Your task to perform on an android device: Open Yahoo.com Image 0: 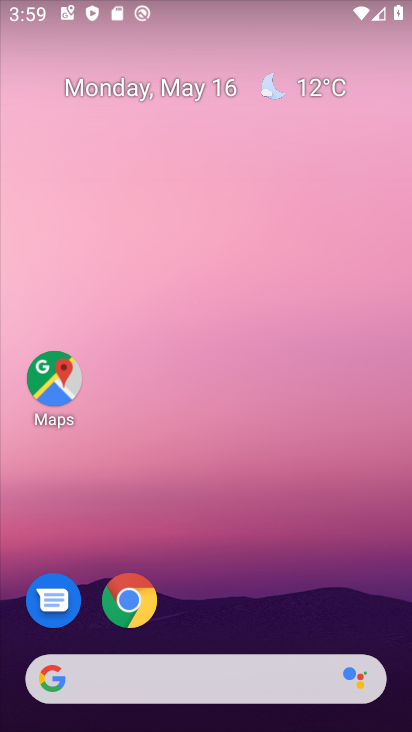
Step 0: click (114, 596)
Your task to perform on an android device: Open Yahoo.com Image 1: 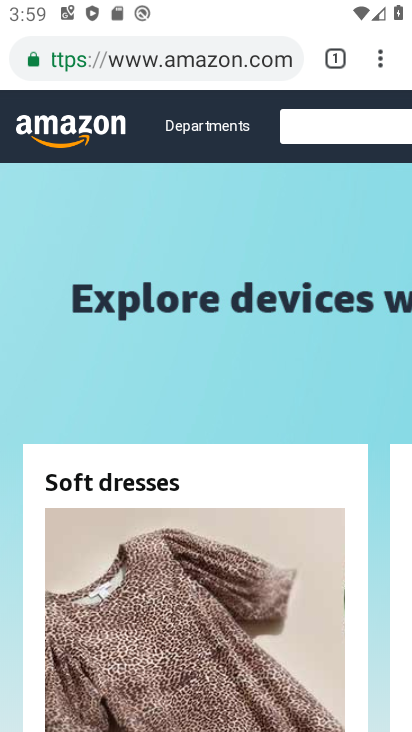
Step 1: click (335, 59)
Your task to perform on an android device: Open Yahoo.com Image 2: 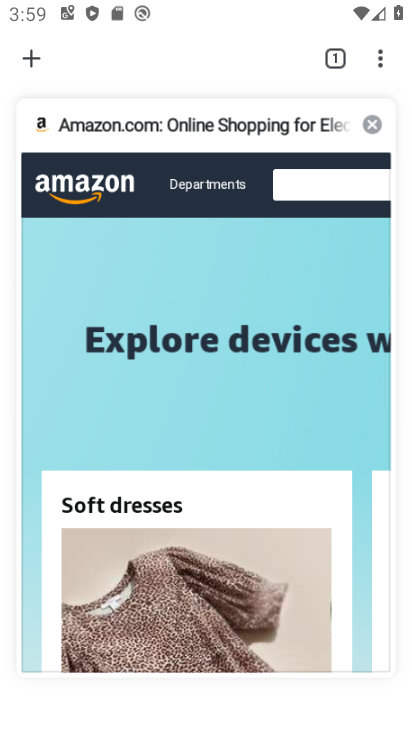
Step 2: click (338, 57)
Your task to perform on an android device: Open Yahoo.com Image 3: 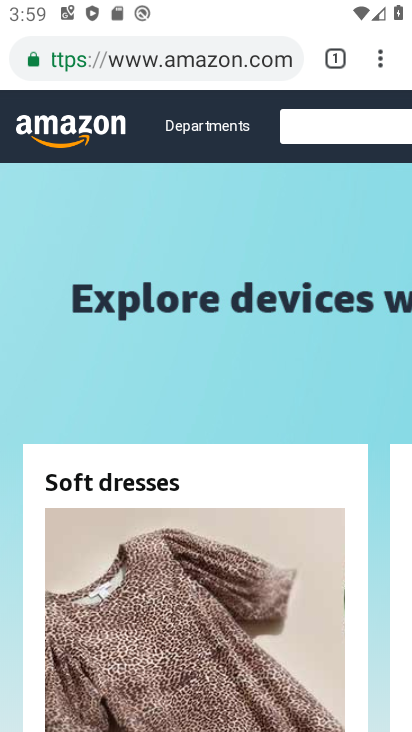
Step 3: click (333, 57)
Your task to perform on an android device: Open Yahoo.com Image 4: 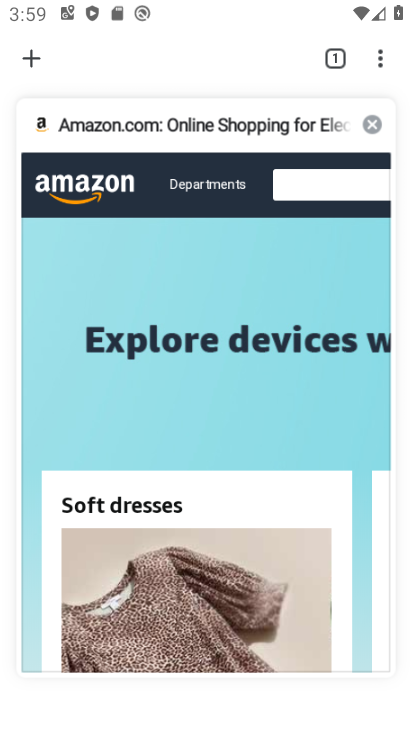
Step 4: click (372, 126)
Your task to perform on an android device: Open Yahoo.com Image 5: 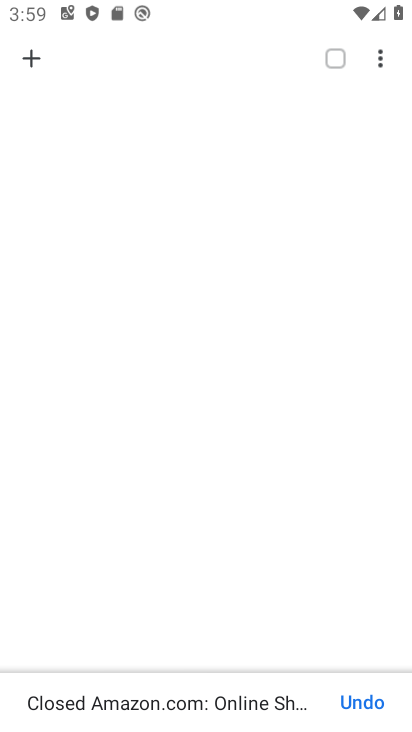
Step 5: click (34, 60)
Your task to perform on an android device: Open Yahoo.com Image 6: 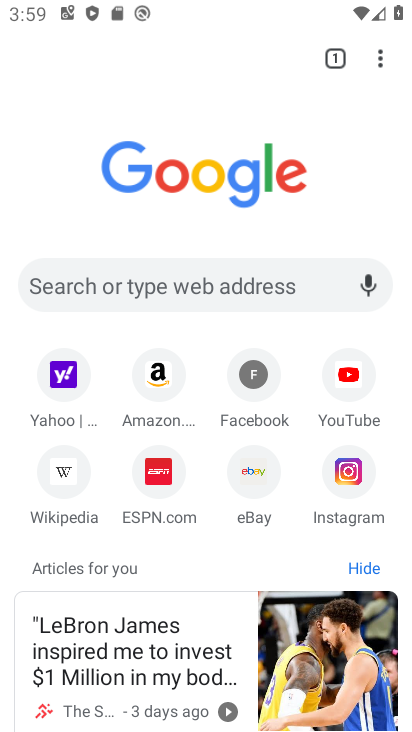
Step 6: click (65, 368)
Your task to perform on an android device: Open Yahoo.com Image 7: 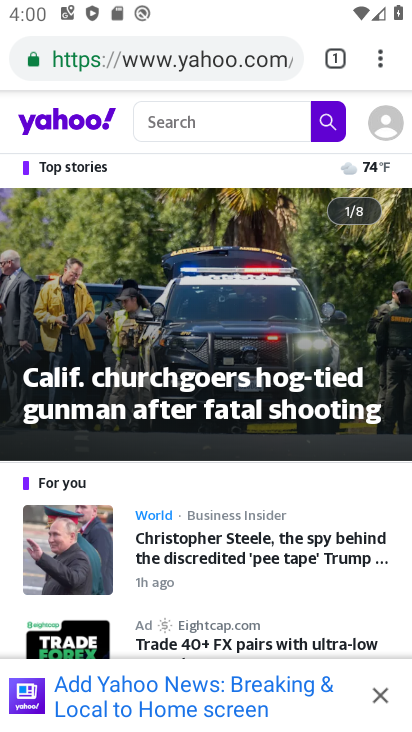
Step 7: task complete